Your task to perform on an android device: change the clock display to digital Image 0: 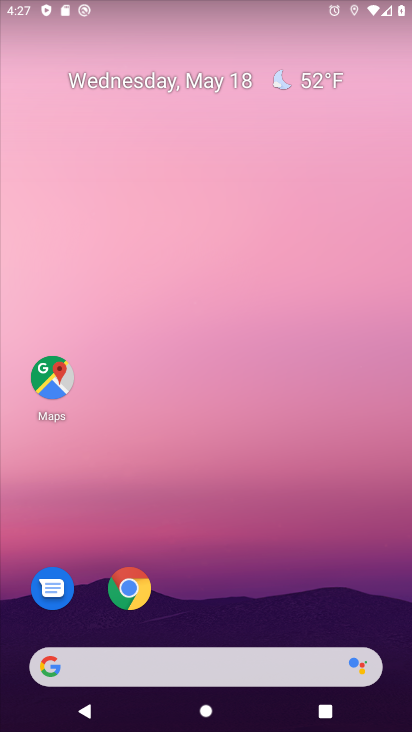
Step 0: drag from (278, 602) to (262, 63)
Your task to perform on an android device: change the clock display to digital Image 1: 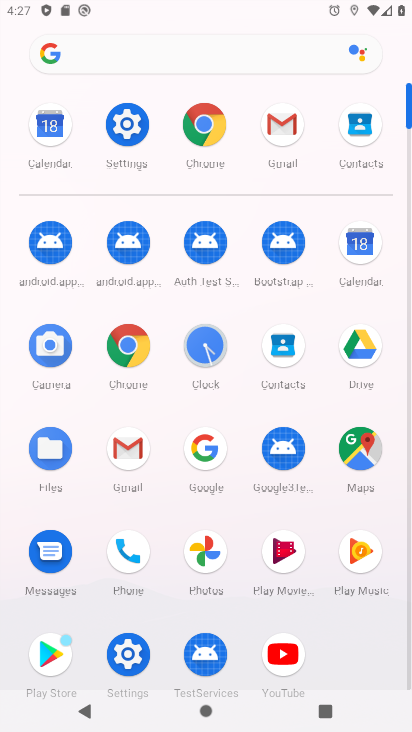
Step 1: click (205, 337)
Your task to perform on an android device: change the clock display to digital Image 2: 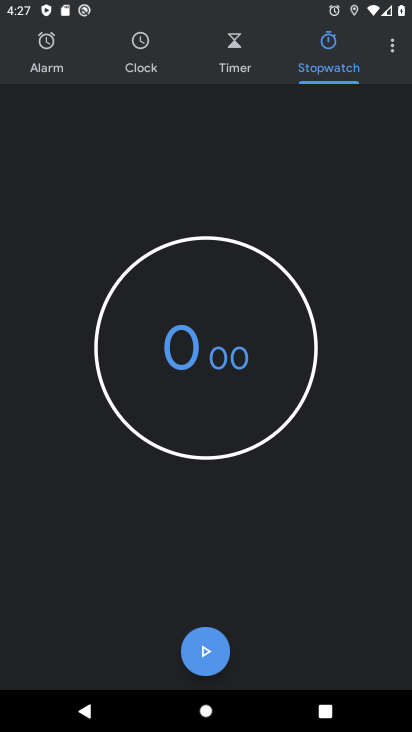
Step 2: click (397, 50)
Your task to perform on an android device: change the clock display to digital Image 3: 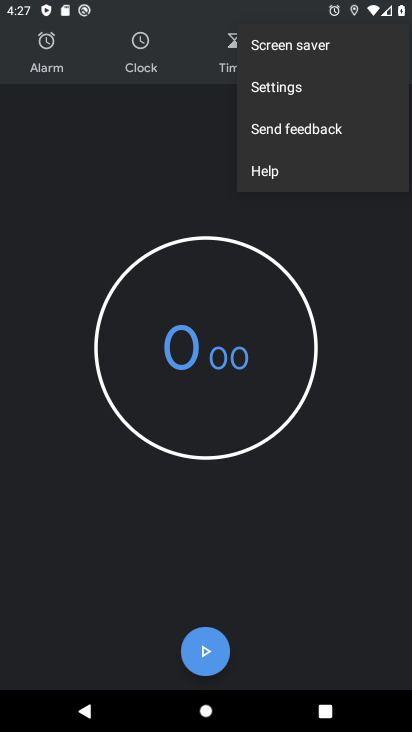
Step 3: click (290, 93)
Your task to perform on an android device: change the clock display to digital Image 4: 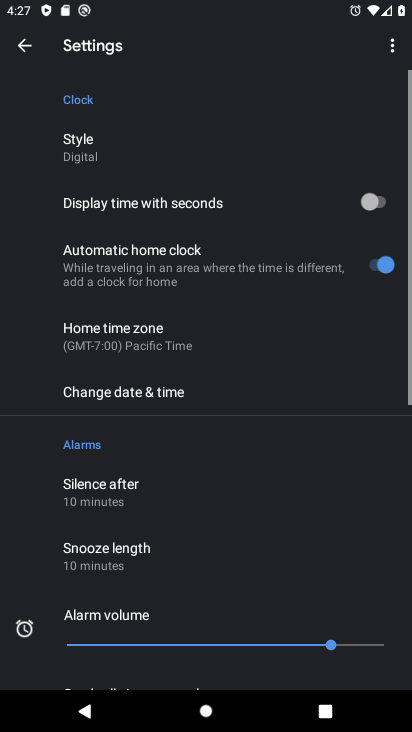
Step 4: click (95, 148)
Your task to perform on an android device: change the clock display to digital Image 5: 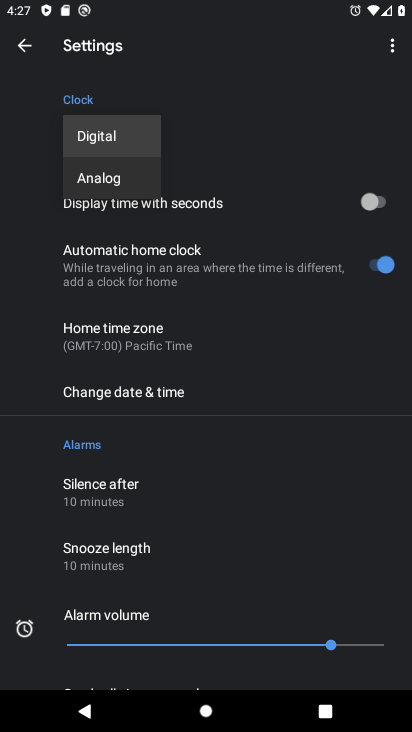
Step 5: click (142, 182)
Your task to perform on an android device: change the clock display to digital Image 6: 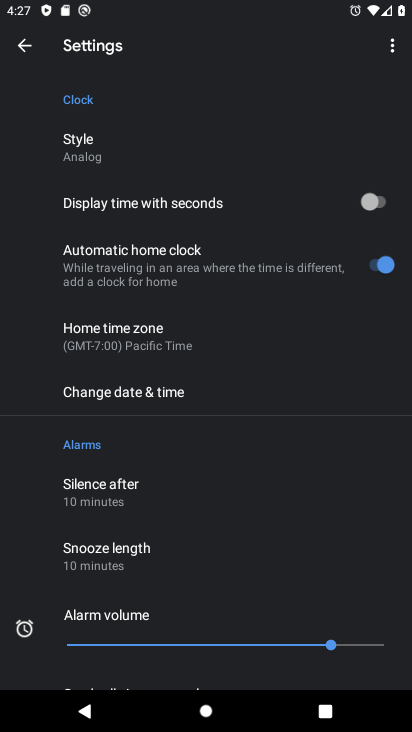
Step 6: task complete